Your task to perform on an android device: Search for sushi restaurants on Maps Image 0: 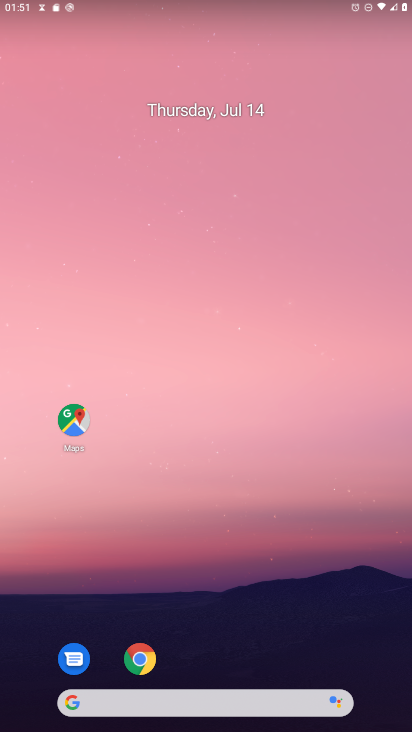
Step 0: drag from (116, 364) to (256, 13)
Your task to perform on an android device: Search for sushi restaurants on Maps Image 1: 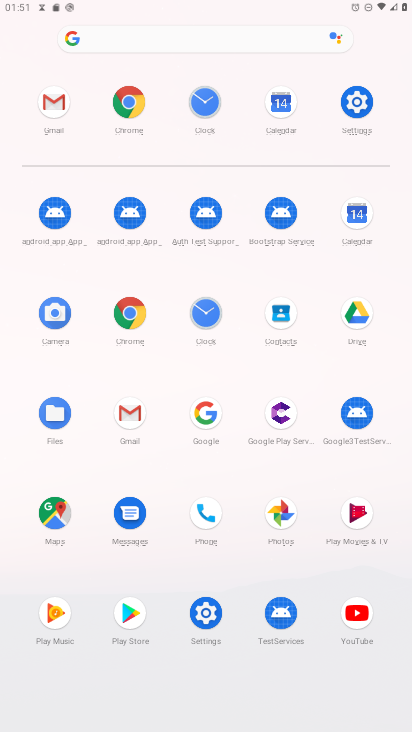
Step 1: click (49, 512)
Your task to perform on an android device: Search for sushi restaurants on Maps Image 2: 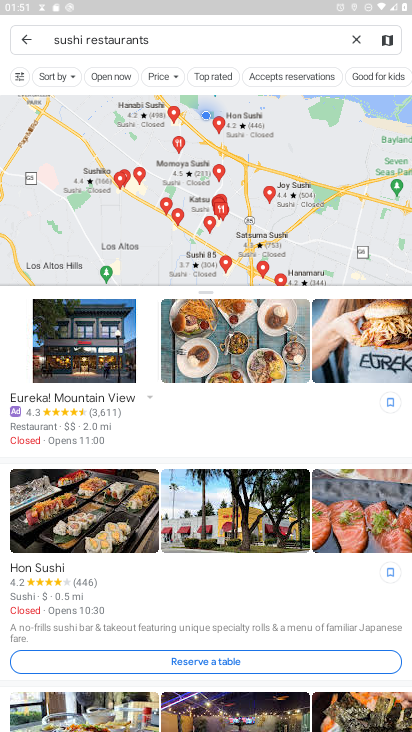
Step 2: task complete